Your task to perform on an android device: change timer sound Image 0: 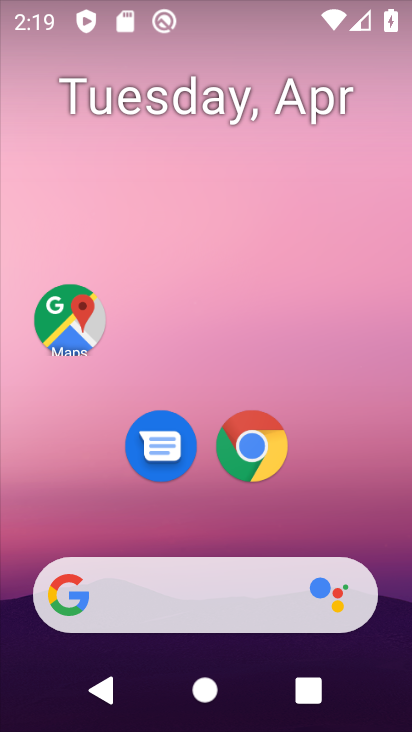
Step 0: drag from (191, 455) to (275, 5)
Your task to perform on an android device: change timer sound Image 1: 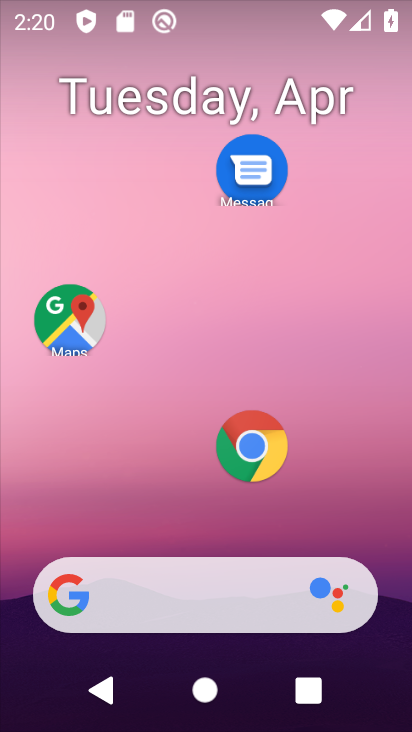
Step 1: drag from (190, 428) to (269, 94)
Your task to perform on an android device: change timer sound Image 2: 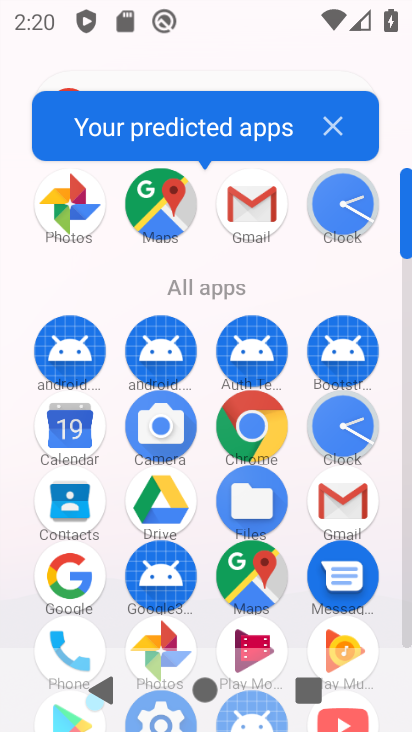
Step 2: click (344, 216)
Your task to perform on an android device: change timer sound Image 3: 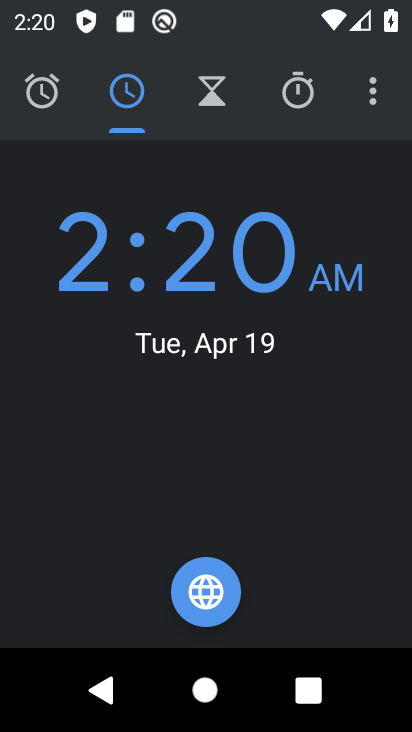
Step 3: click (372, 95)
Your task to perform on an android device: change timer sound Image 4: 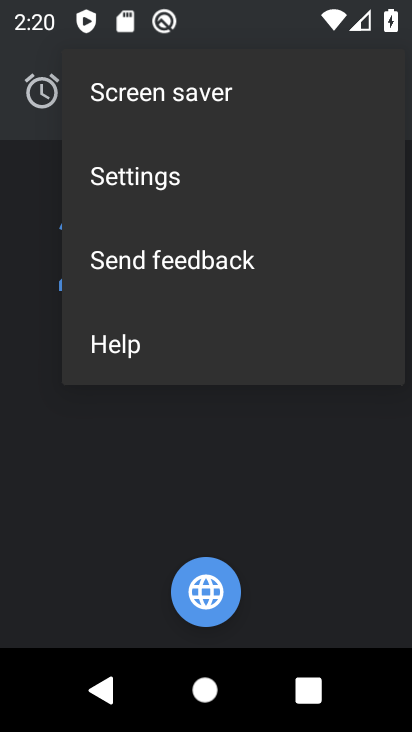
Step 4: click (123, 194)
Your task to perform on an android device: change timer sound Image 5: 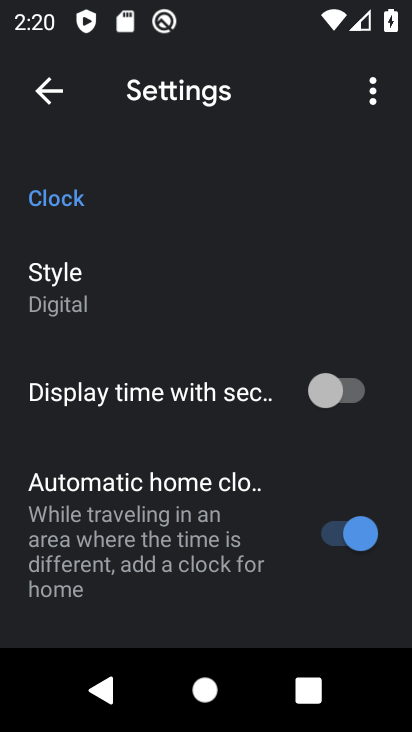
Step 5: drag from (200, 514) to (236, 176)
Your task to perform on an android device: change timer sound Image 6: 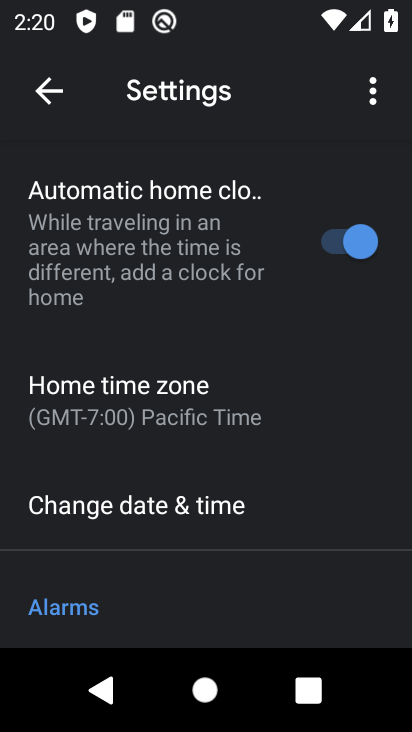
Step 6: drag from (166, 559) to (238, 99)
Your task to perform on an android device: change timer sound Image 7: 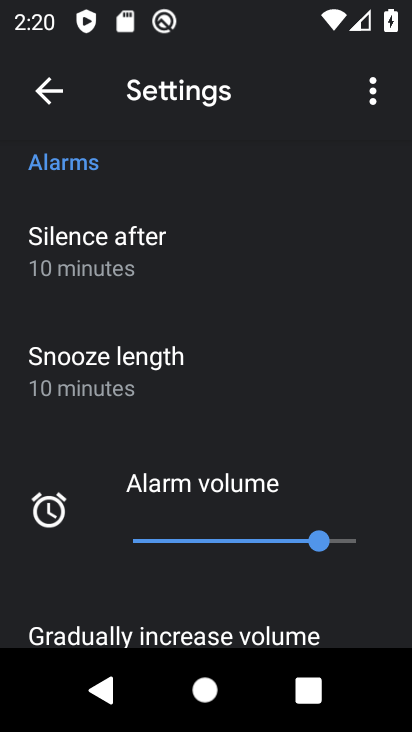
Step 7: drag from (177, 596) to (274, 80)
Your task to perform on an android device: change timer sound Image 8: 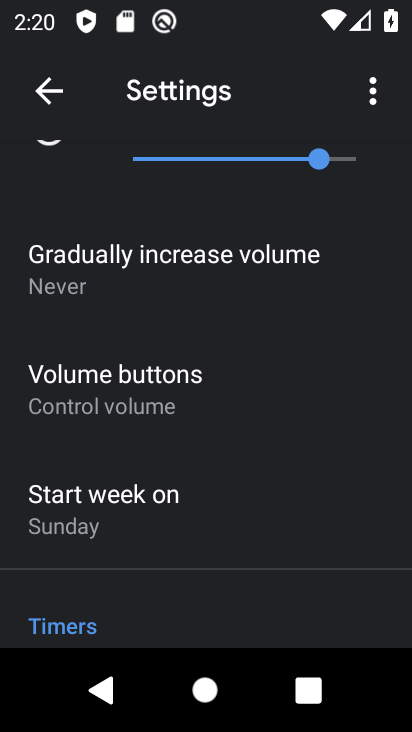
Step 8: drag from (133, 569) to (207, 162)
Your task to perform on an android device: change timer sound Image 9: 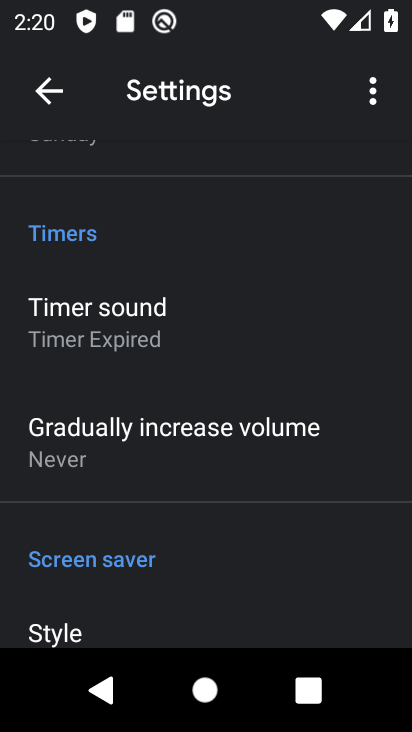
Step 9: click (137, 317)
Your task to perform on an android device: change timer sound Image 10: 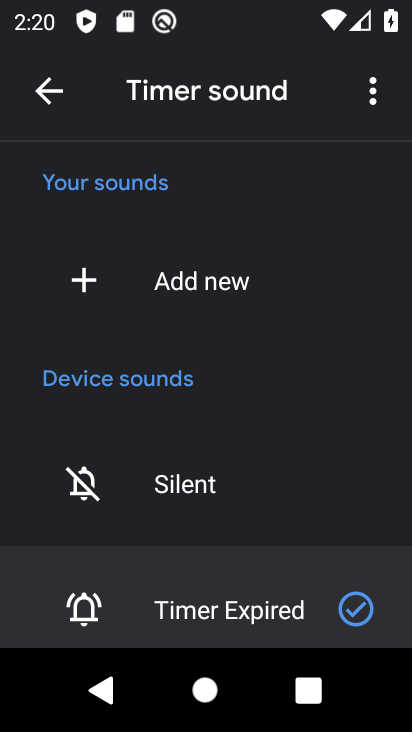
Step 10: drag from (136, 591) to (194, 243)
Your task to perform on an android device: change timer sound Image 11: 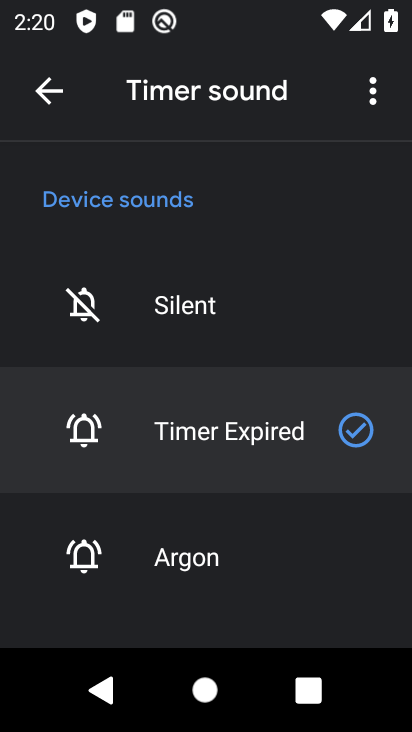
Step 11: click (143, 540)
Your task to perform on an android device: change timer sound Image 12: 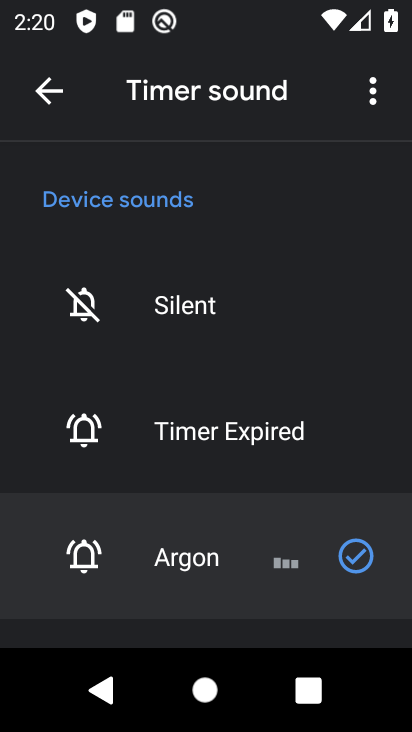
Step 12: task complete